Your task to perform on an android device: Open calendar and show me the second week of next month Image 0: 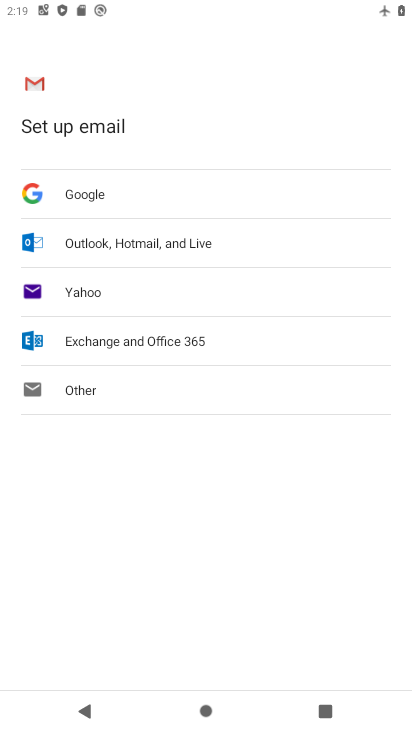
Step 0: press home button
Your task to perform on an android device: Open calendar and show me the second week of next month Image 1: 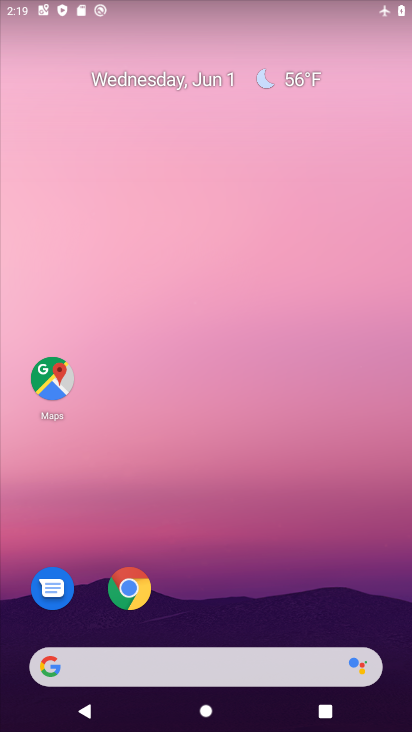
Step 1: drag from (295, 422) to (183, 43)
Your task to perform on an android device: Open calendar and show me the second week of next month Image 2: 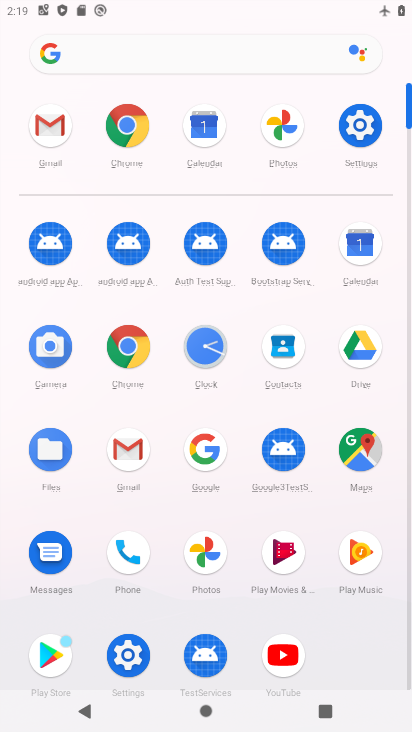
Step 2: click (364, 251)
Your task to perform on an android device: Open calendar and show me the second week of next month Image 3: 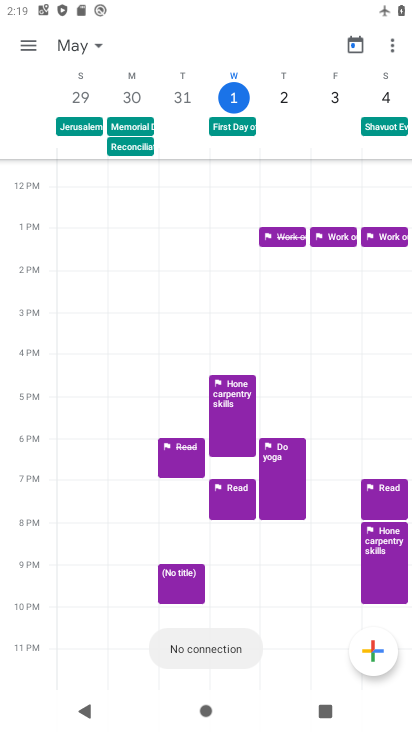
Step 3: click (104, 41)
Your task to perform on an android device: Open calendar and show me the second week of next month Image 4: 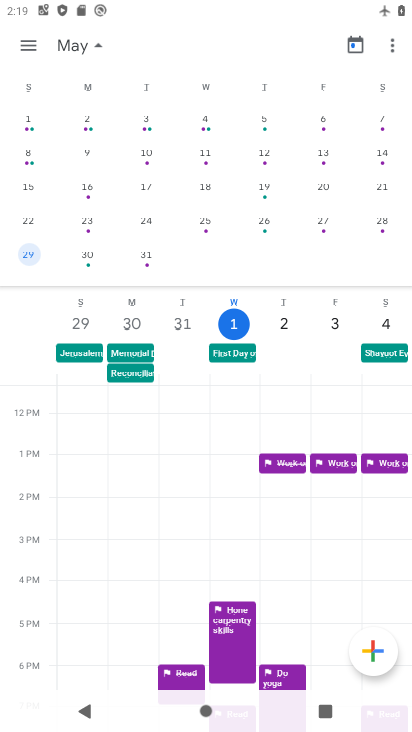
Step 4: drag from (354, 186) to (7, 232)
Your task to perform on an android device: Open calendar and show me the second week of next month Image 5: 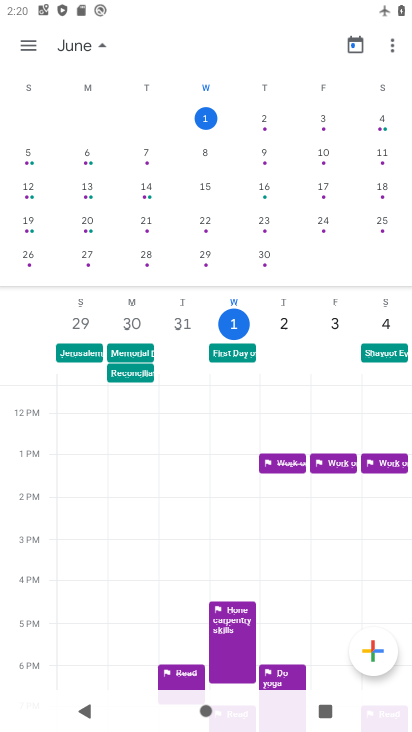
Step 5: click (30, 162)
Your task to perform on an android device: Open calendar and show me the second week of next month Image 6: 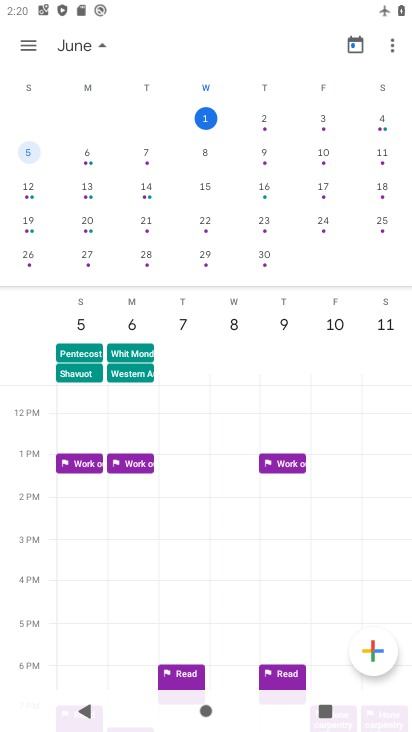
Step 6: task complete